Your task to perform on an android device: Open battery settings Image 0: 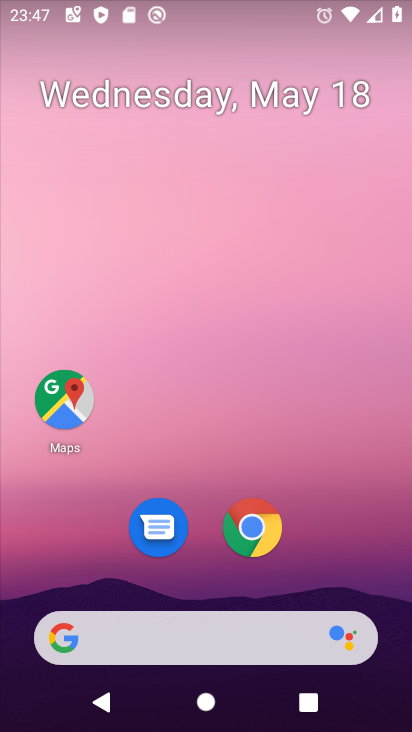
Step 0: drag from (353, 551) to (310, 54)
Your task to perform on an android device: Open battery settings Image 1: 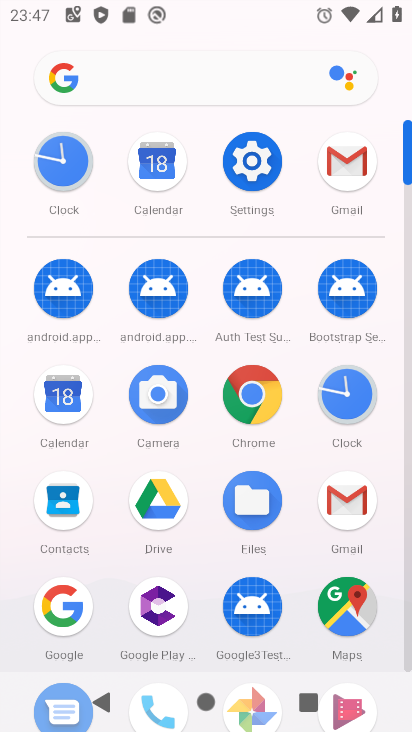
Step 1: click (268, 174)
Your task to perform on an android device: Open battery settings Image 2: 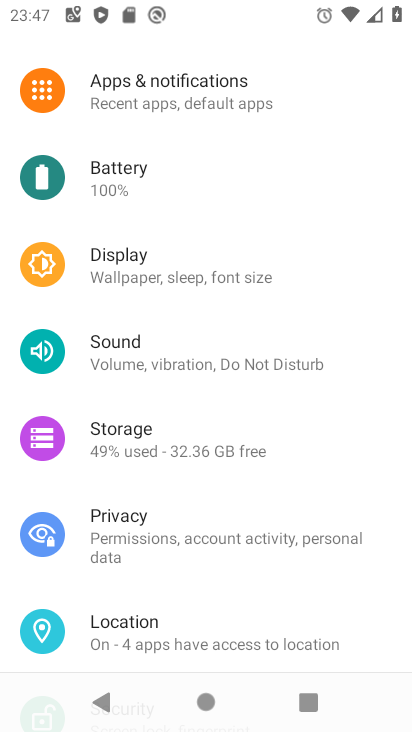
Step 2: click (216, 170)
Your task to perform on an android device: Open battery settings Image 3: 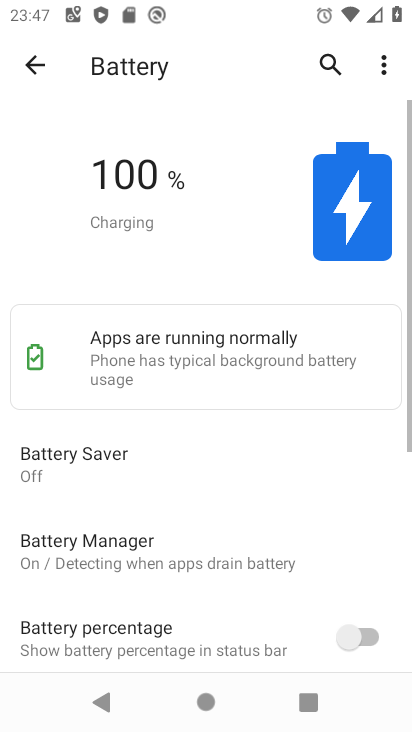
Step 3: task complete